Your task to perform on an android device: Search for pizza restaurants on Maps Image 0: 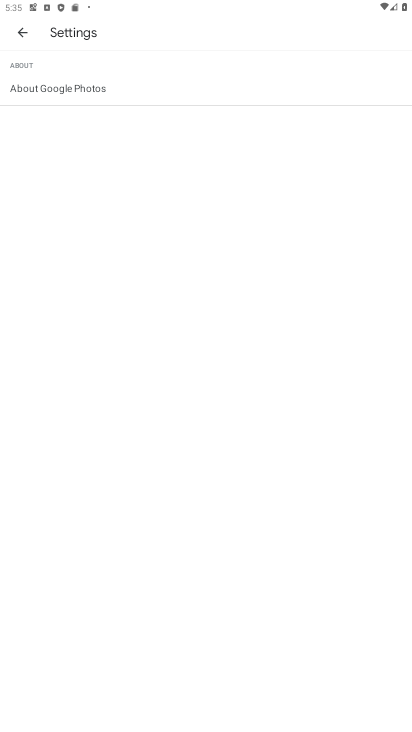
Step 0: press home button
Your task to perform on an android device: Search for pizza restaurants on Maps Image 1: 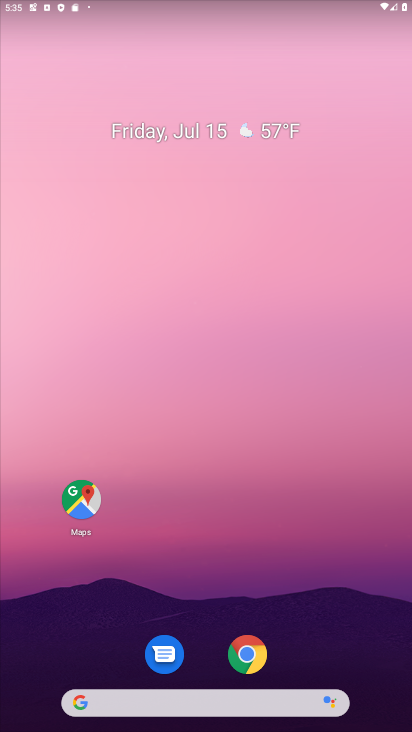
Step 1: click (86, 509)
Your task to perform on an android device: Search for pizza restaurants on Maps Image 2: 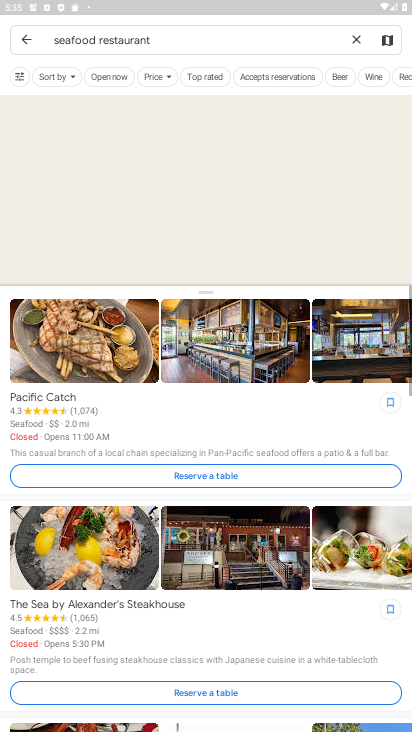
Step 2: click (357, 41)
Your task to perform on an android device: Search for pizza restaurants on Maps Image 3: 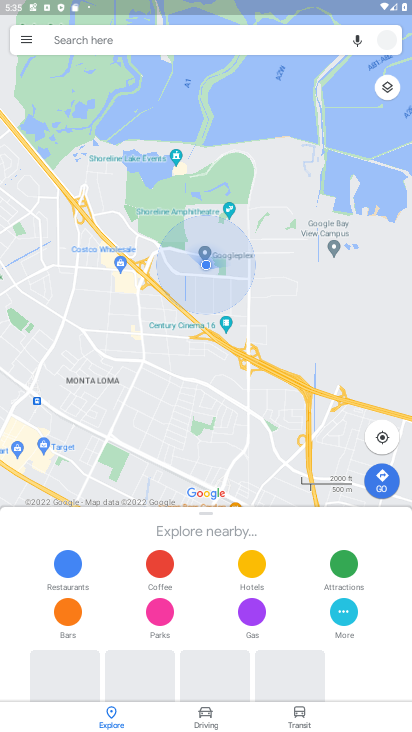
Step 3: click (218, 37)
Your task to perform on an android device: Search for pizza restaurants on Maps Image 4: 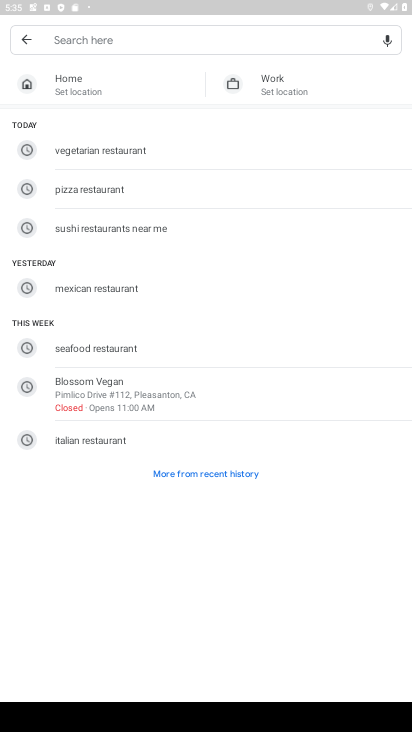
Step 4: click (152, 189)
Your task to perform on an android device: Search for pizza restaurants on Maps Image 5: 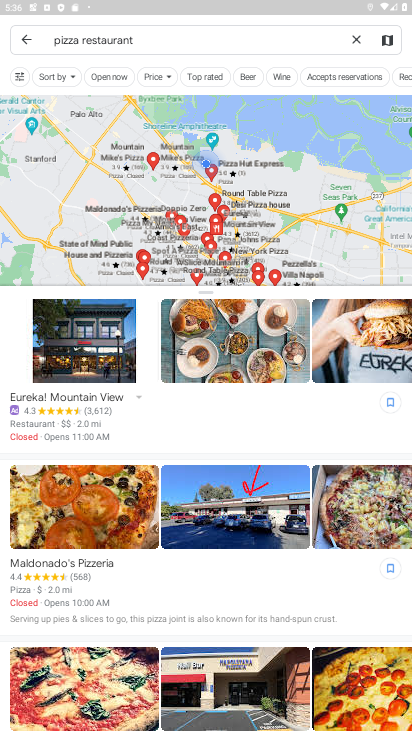
Step 5: task complete